Your task to perform on an android device: change the clock style Image 0: 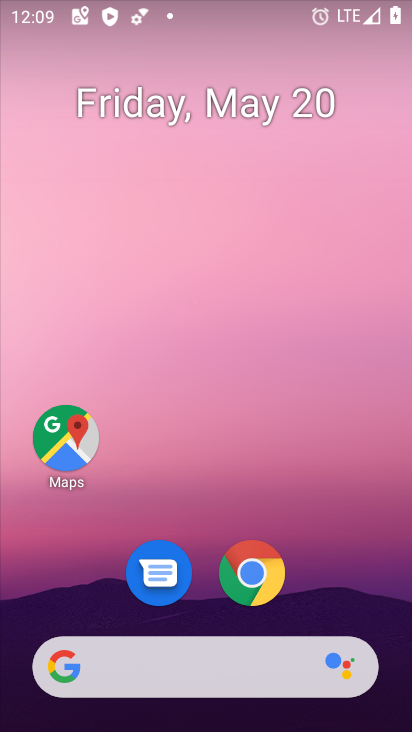
Step 0: drag from (207, 607) to (291, 45)
Your task to perform on an android device: change the clock style Image 1: 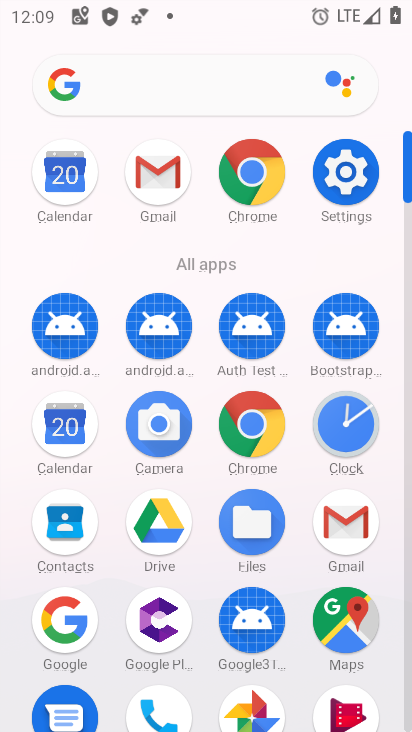
Step 1: click (333, 429)
Your task to perform on an android device: change the clock style Image 2: 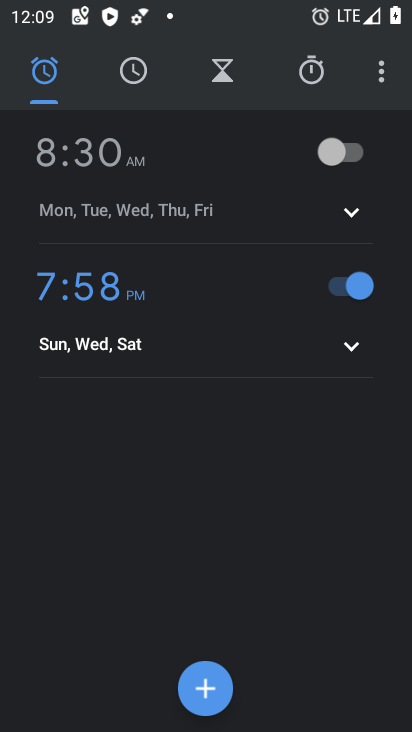
Step 2: click (379, 82)
Your task to perform on an android device: change the clock style Image 3: 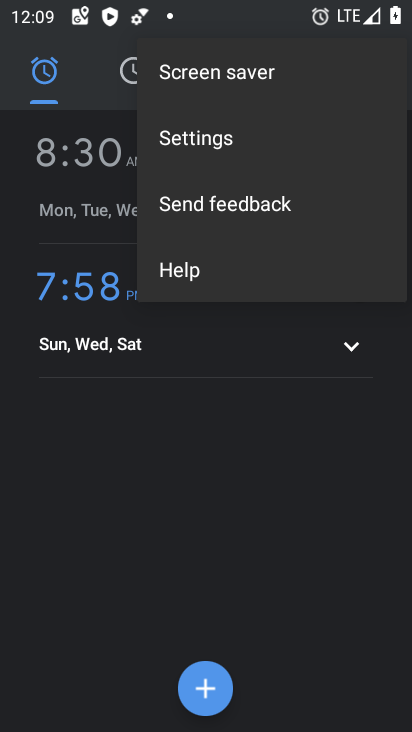
Step 3: click (219, 147)
Your task to perform on an android device: change the clock style Image 4: 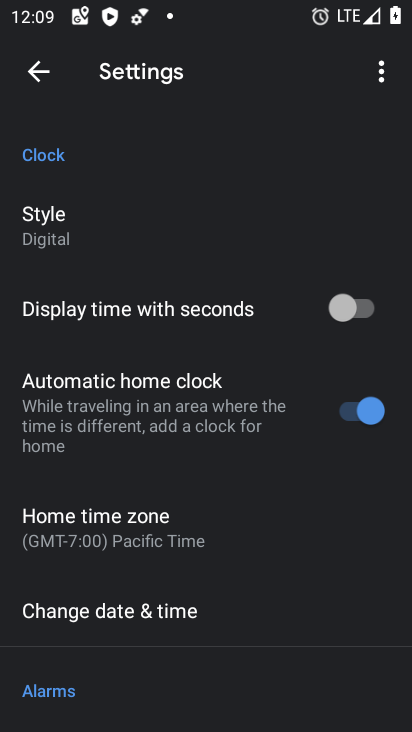
Step 4: click (111, 243)
Your task to perform on an android device: change the clock style Image 5: 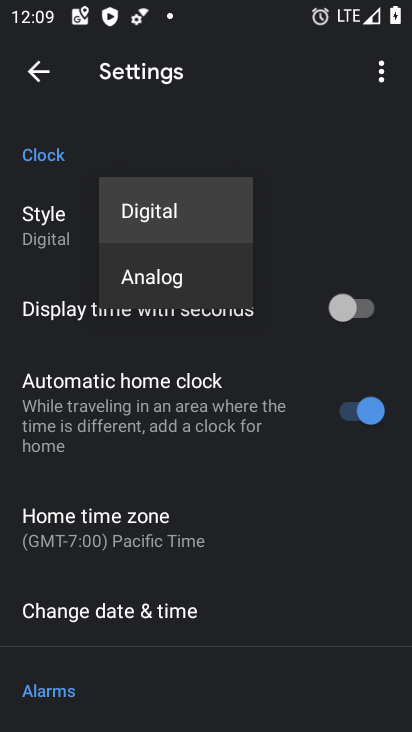
Step 5: click (166, 286)
Your task to perform on an android device: change the clock style Image 6: 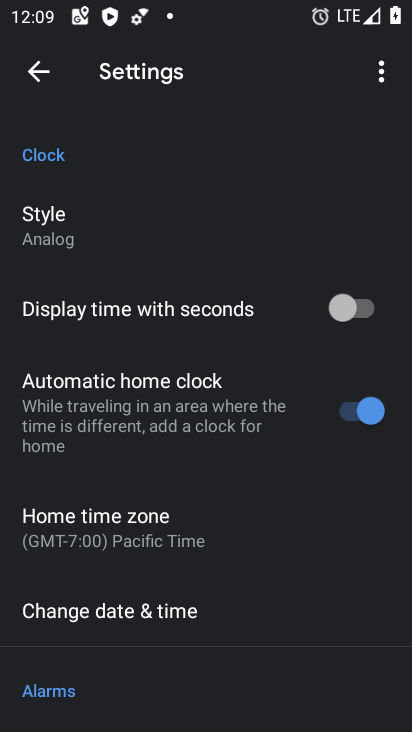
Step 6: task complete